Your task to perform on an android device: Open location settings Image 0: 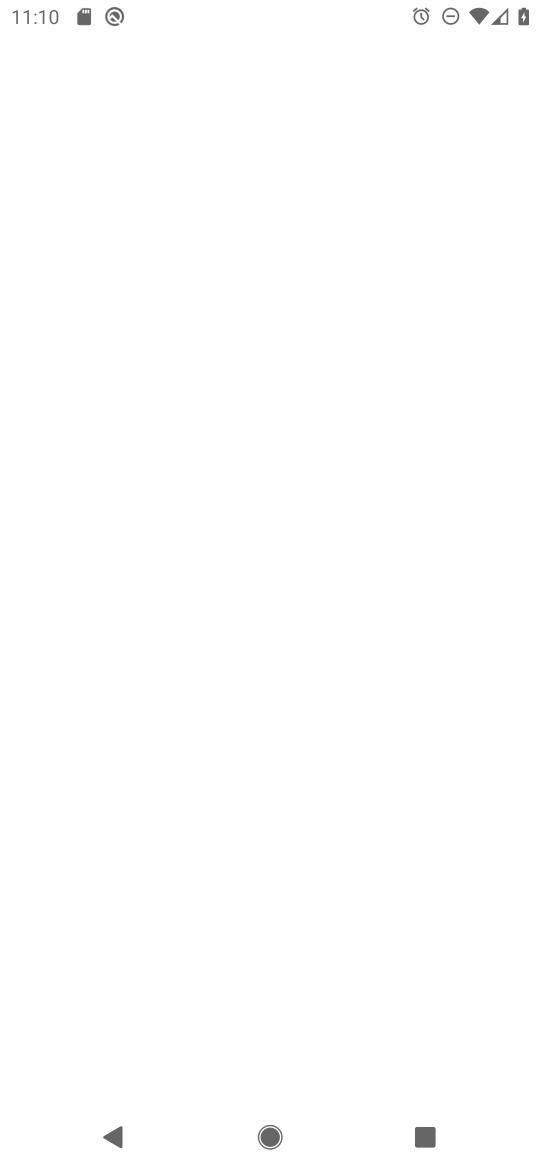
Step 0: press home button
Your task to perform on an android device: Open location settings Image 1: 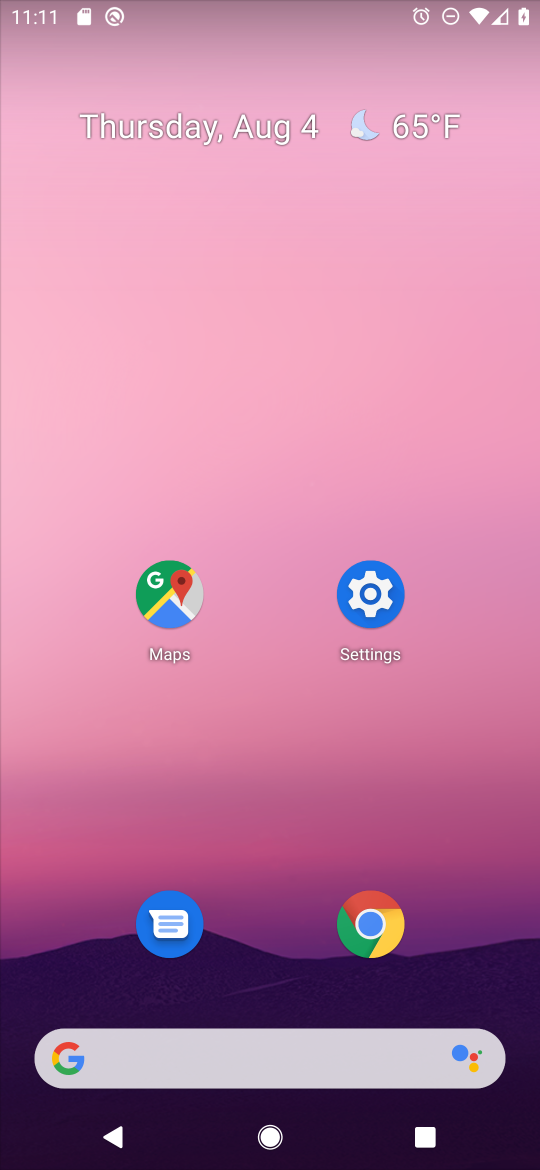
Step 1: drag from (284, 1057) to (466, 130)
Your task to perform on an android device: Open location settings Image 2: 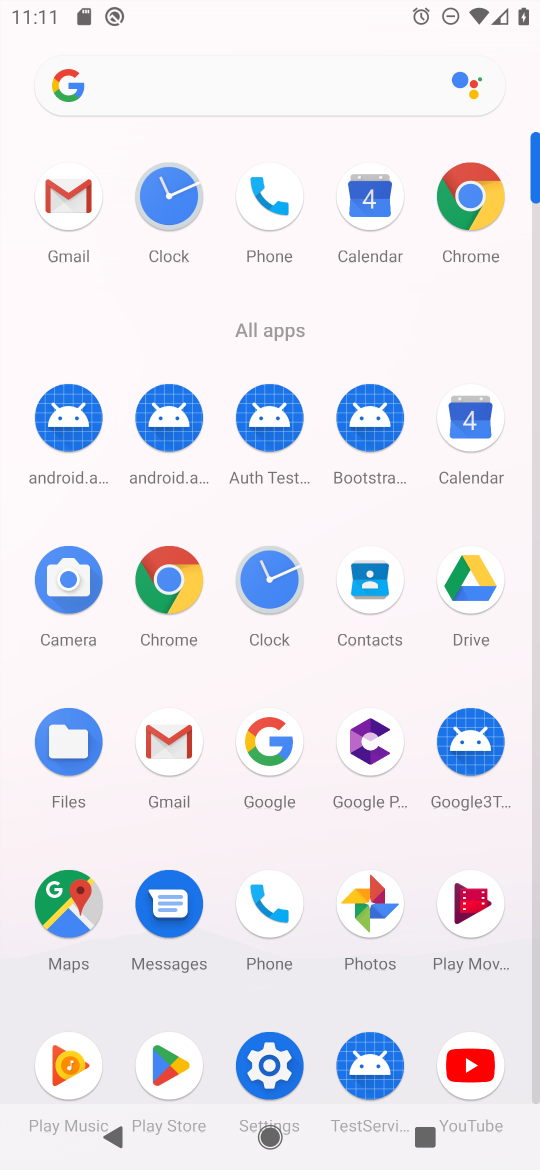
Step 2: click (274, 1061)
Your task to perform on an android device: Open location settings Image 3: 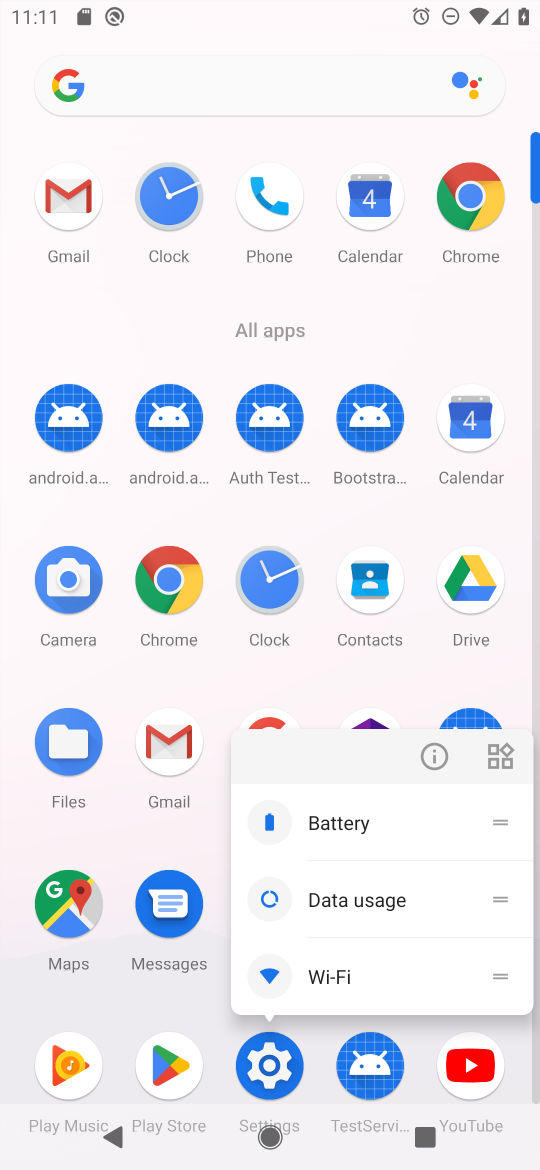
Step 3: click (276, 1066)
Your task to perform on an android device: Open location settings Image 4: 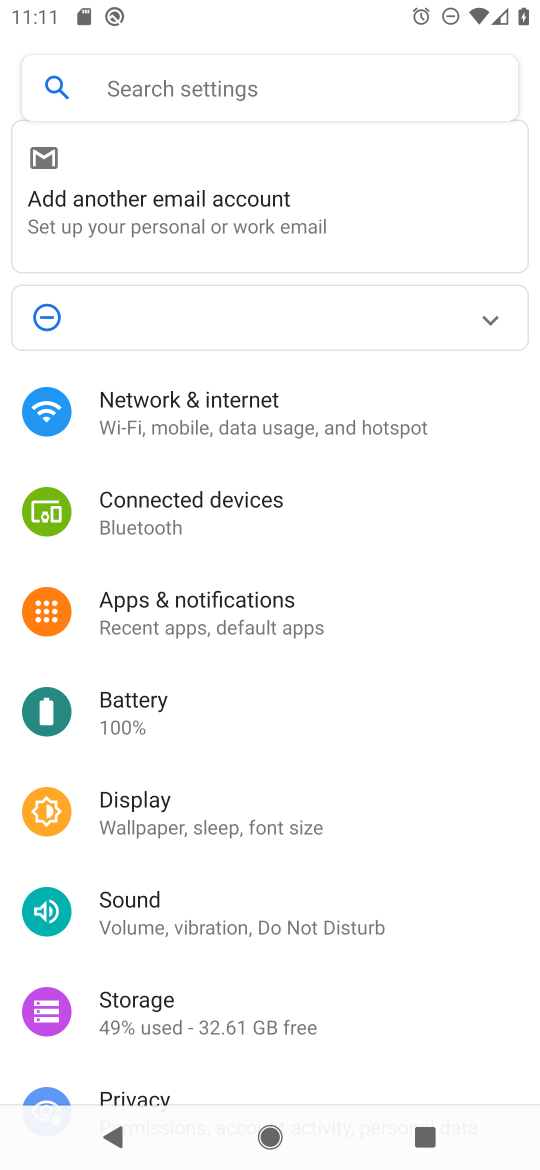
Step 4: drag from (292, 951) to (437, 306)
Your task to perform on an android device: Open location settings Image 5: 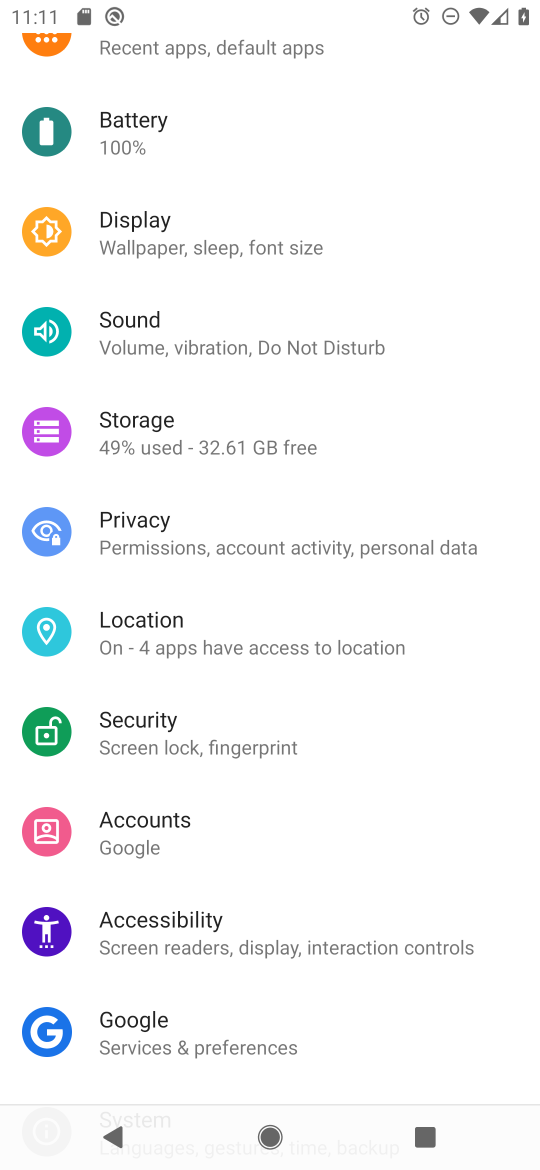
Step 5: click (175, 621)
Your task to perform on an android device: Open location settings Image 6: 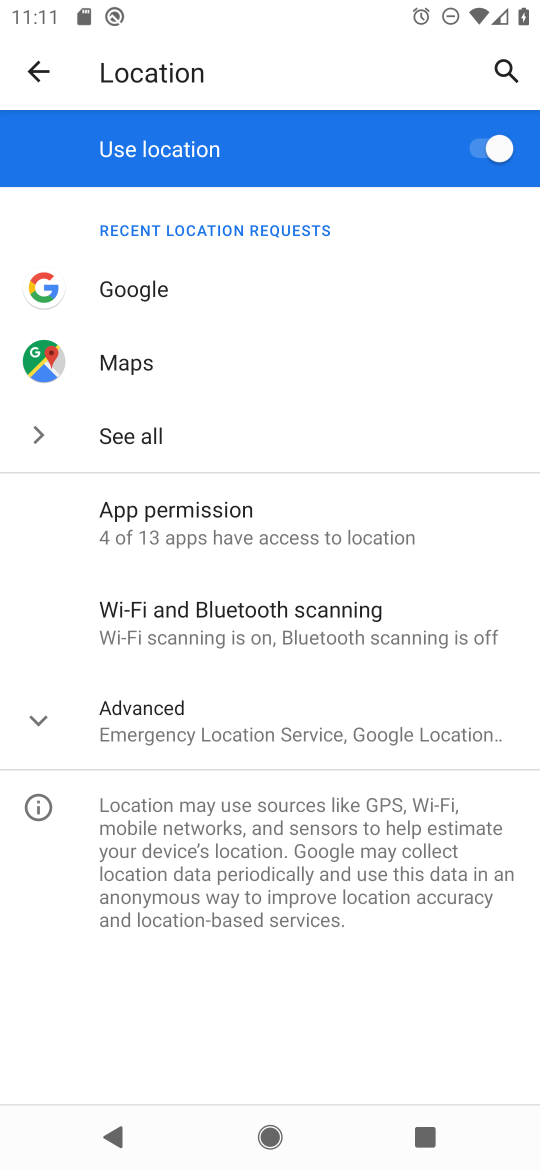
Step 6: task complete